Your task to perform on an android device: Show the shopping cart on ebay.com. Search for "apple airpods" on ebay.com, select the first entry, and add it to the cart. Image 0: 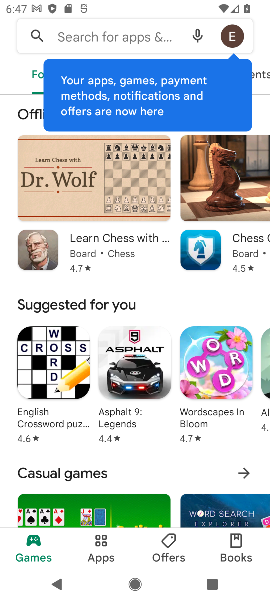
Step 0: press home button
Your task to perform on an android device: Show the shopping cart on ebay.com. Search for "apple airpods" on ebay.com, select the first entry, and add it to the cart. Image 1: 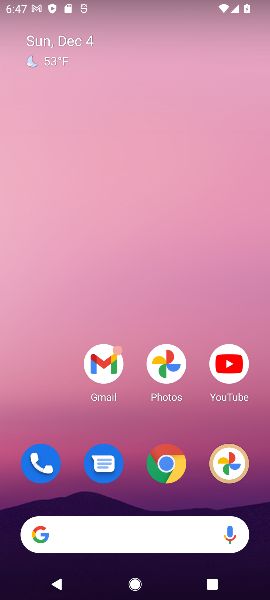
Step 1: click (189, 532)
Your task to perform on an android device: Show the shopping cart on ebay.com. Search for "apple airpods" on ebay.com, select the first entry, and add it to the cart. Image 2: 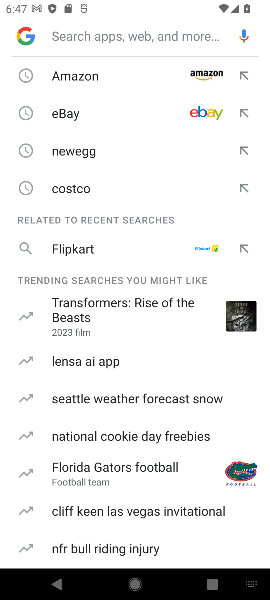
Step 2: type "ebay"
Your task to perform on an android device: Show the shopping cart on ebay.com. Search for "apple airpods" on ebay.com, select the first entry, and add it to the cart. Image 3: 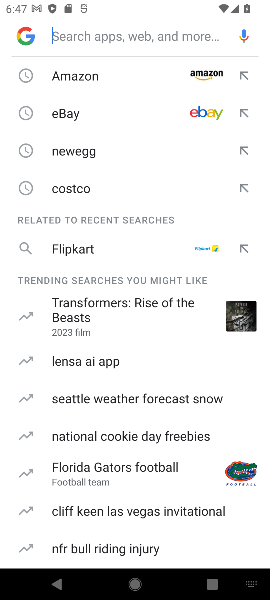
Step 3: click (182, 104)
Your task to perform on an android device: Show the shopping cart on ebay.com. Search for "apple airpods" on ebay.com, select the first entry, and add it to the cart. Image 4: 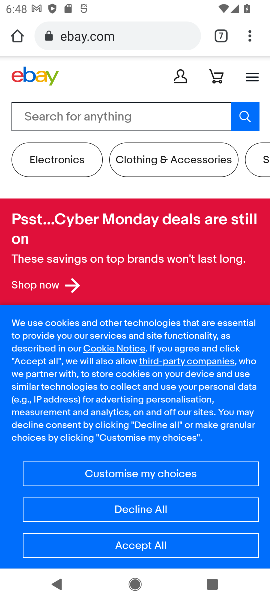
Step 4: task complete